Your task to perform on an android device: turn off airplane mode Image 0: 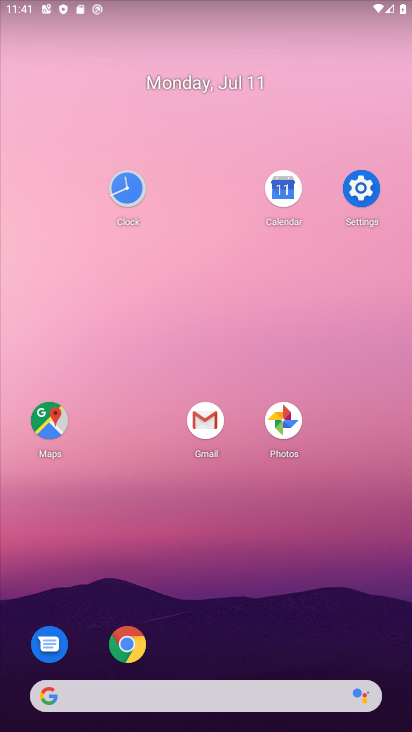
Step 0: click (347, 190)
Your task to perform on an android device: turn off airplane mode Image 1: 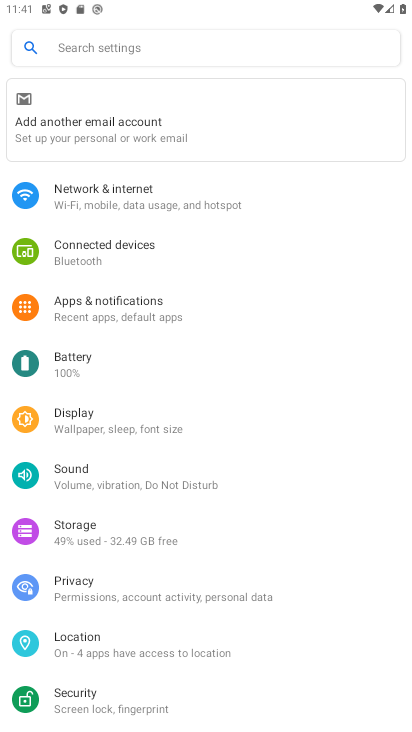
Step 1: click (194, 201)
Your task to perform on an android device: turn off airplane mode Image 2: 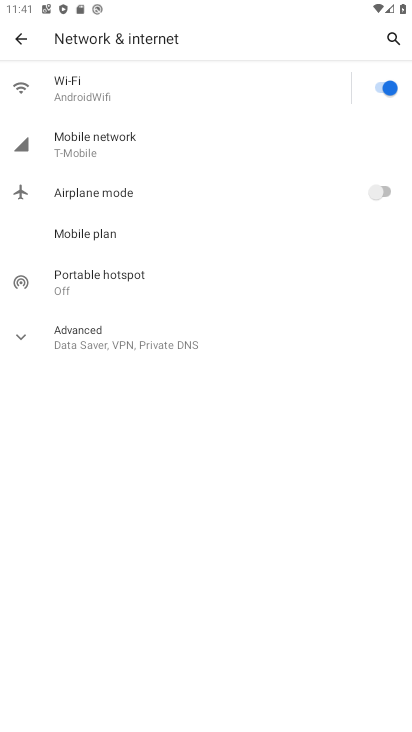
Step 2: task complete